Your task to perform on an android device: toggle notifications settings in the gmail app Image 0: 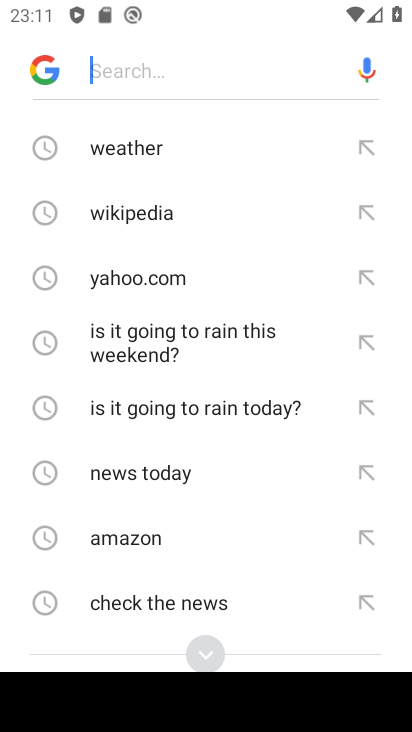
Step 0: press home button
Your task to perform on an android device: toggle notifications settings in the gmail app Image 1: 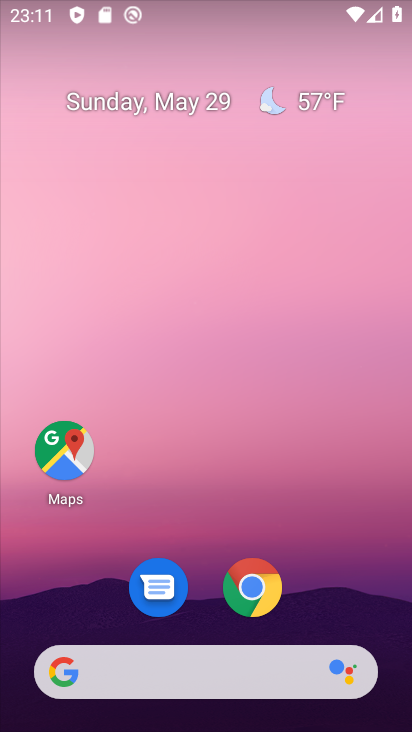
Step 1: drag from (368, 616) to (292, 226)
Your task to perform on an android device: toggle notifications settings in the gmail app Image 2: 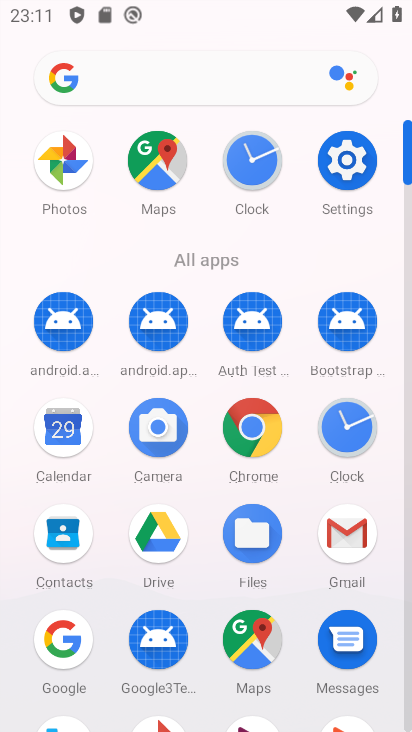
Step 2: click (356, 518)
Your task to perform on an android device: toggle notifications settings in the gmail app Image 3: 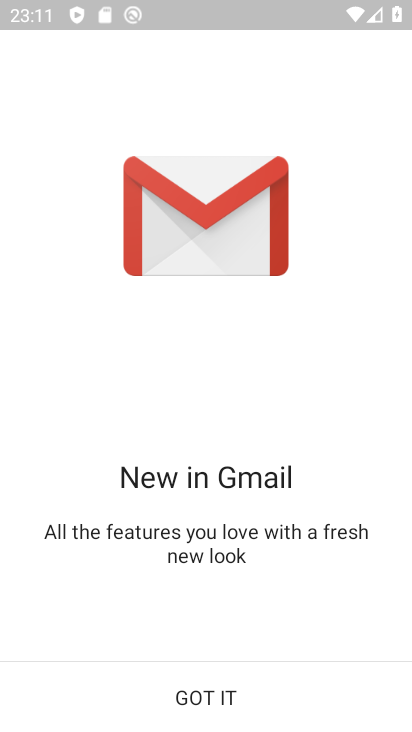
Step 3: click (188, 699)
Your task to perform on an android device: toggle notifications settings in the gmail app Image 4: 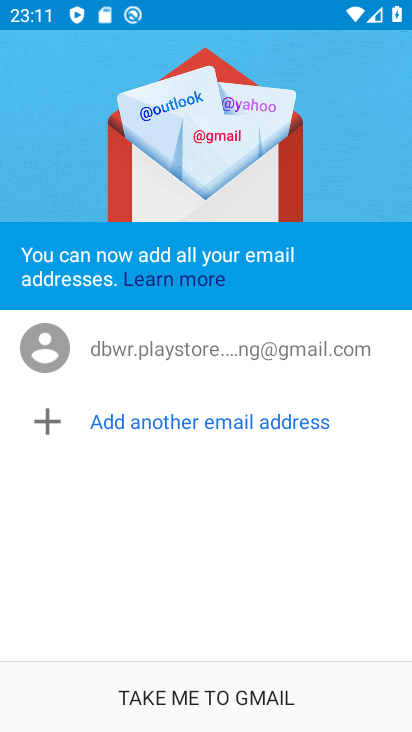
Step 4: click (188, 699)
Your task to perform on an android device: toggle notifications settings in the gmail app Image 5: 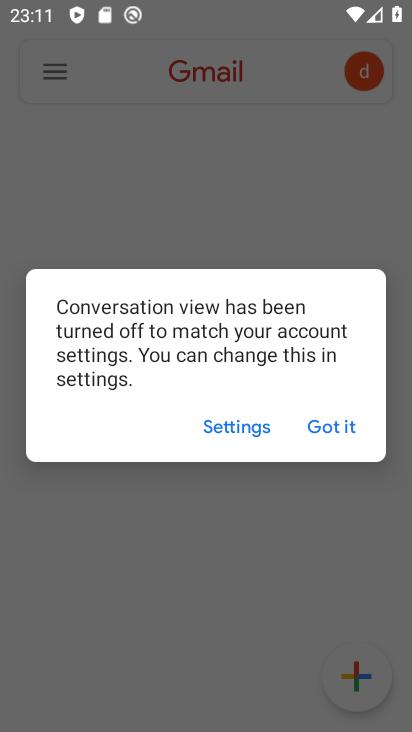
Step 5: click (345, 430)
Your task to perform on an android device: toggle notifications settings in the gmail app Image 6: 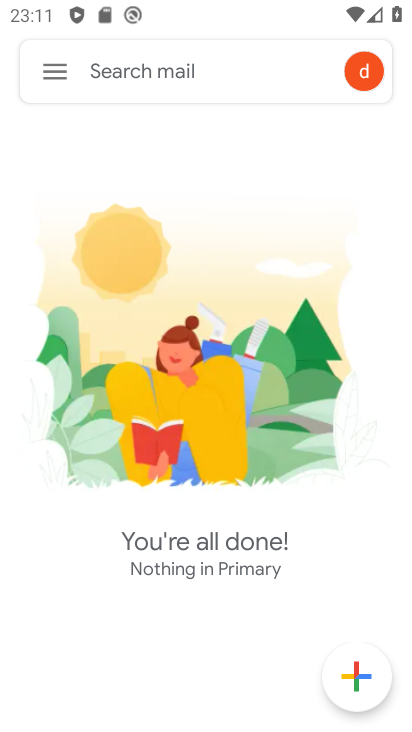
Step 6: click (46, 74)
Your task to perform on an android device: toggle notifications settings in the gmail app Image 7: 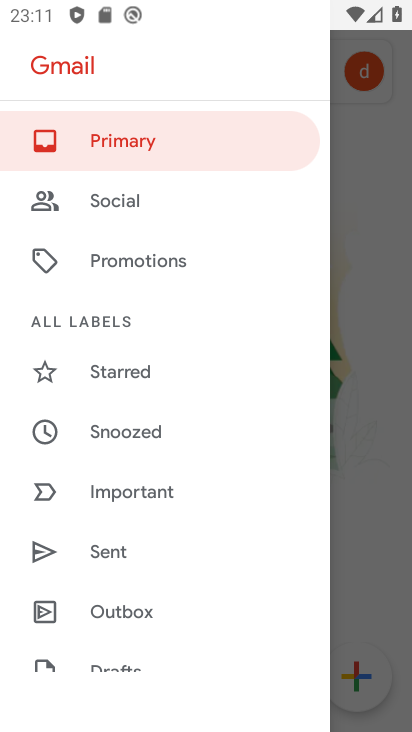
Step 7: drag from (150, 621) to (101, 136)
Your task to perform on an android device: toggle notifications settings in the gmail app Image 8: 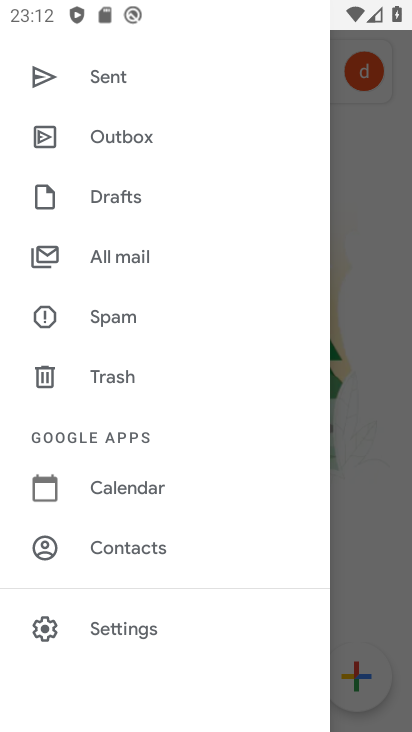
Step 8: click (151, 632)
Your task to perform on an android device: toggle notifications settings in the gmail app Image 9: 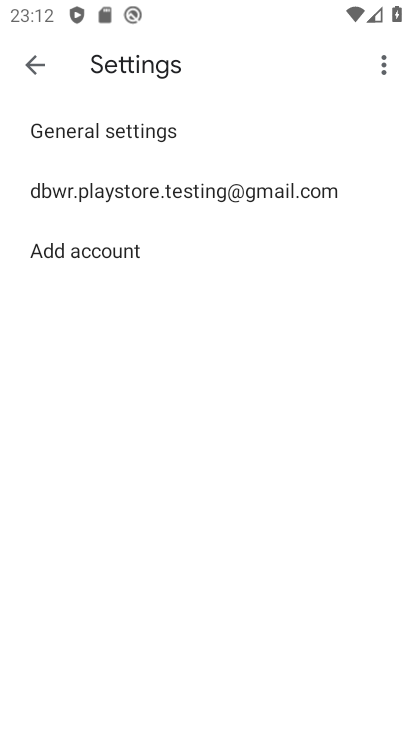
Step 9: click (254, 209)
Your task to perform on an android device: toggle notifications settings in the gmail app Image 10: 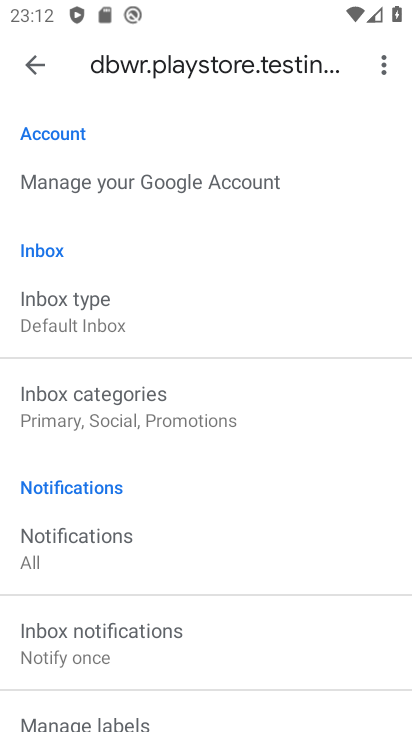
Step 10: drag from (200, 624) to (203, 197)
Your task to perform on an android device: toggle notifications settings in the gmail app Image 11: 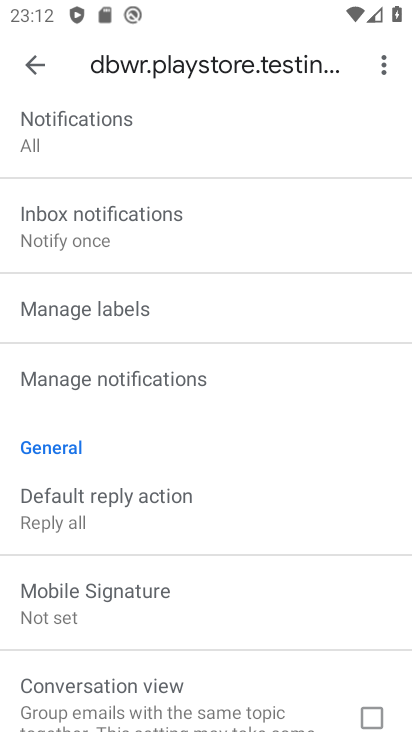
Step 11: click (203, 380)
Your task to perform on an android device: toggle notifications settings in the gmail app Image 12: 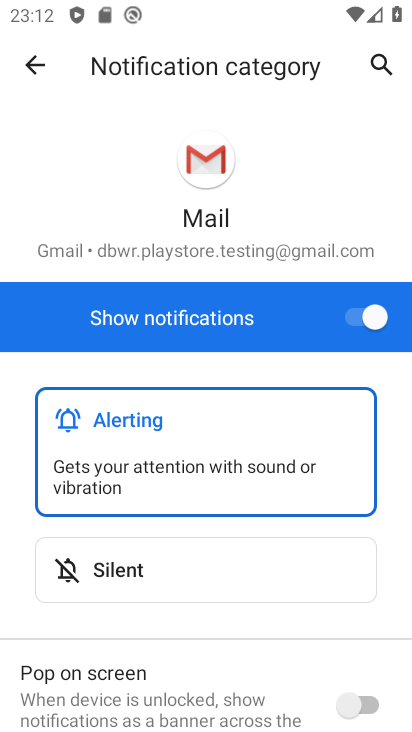
Step 12: drag from (261, 550) to (234, 133)
Your task to perform on an android device: toggle notifications settings in the gmail app Image 13: 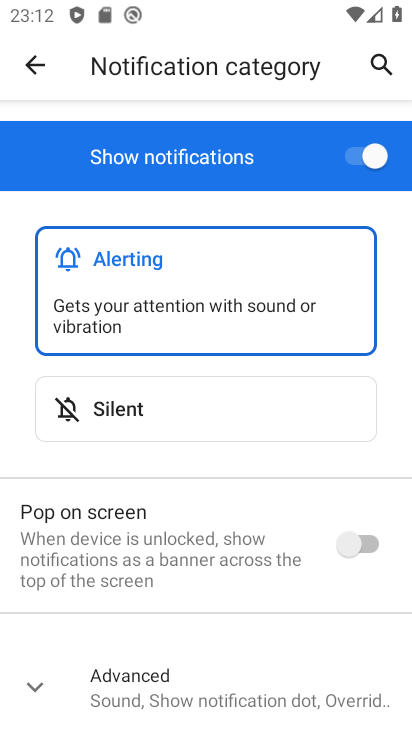
Step 13: drag from (223, 574) to (201, 274)
Your task to perform on an android device: toggle notifications settings in the gmail app Image 14: 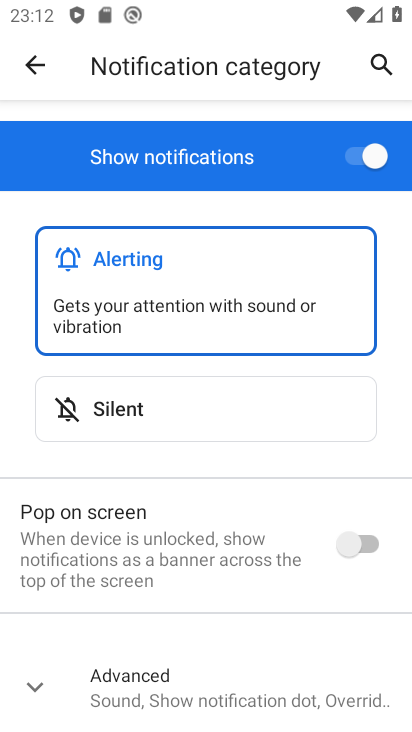
Step 14: click (343, 398)
Your task to perform on an android device: toggle notifications settings in the gmail app Image 15: 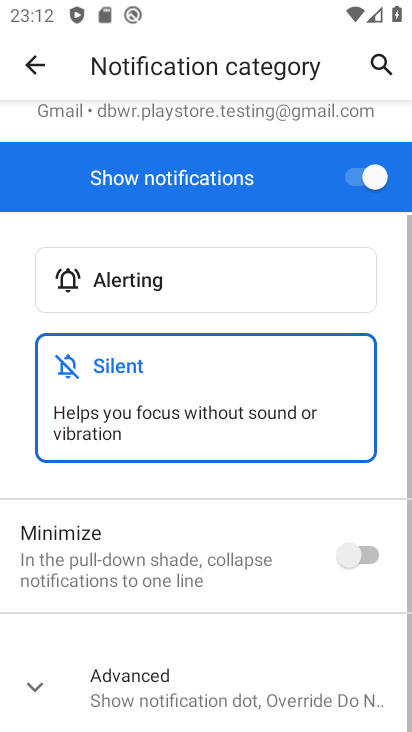
Step 15: click (362, 544)
Your task to perform on an android device: toggle notifications settings in the gmail app Image 16: 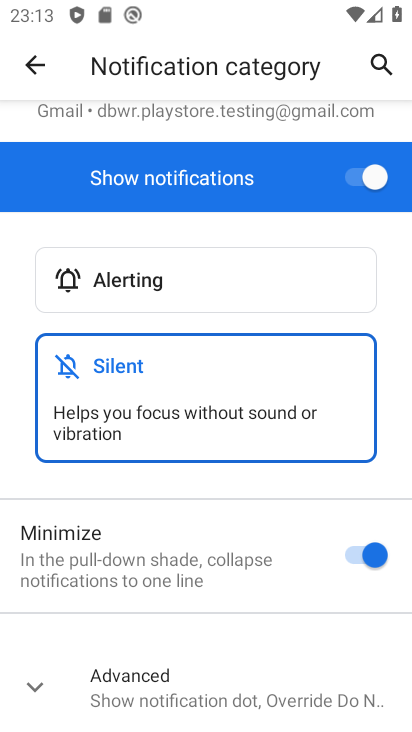
Step 16: task complete